Your task to perform on an android device: clear history in the chrome app Image 0: 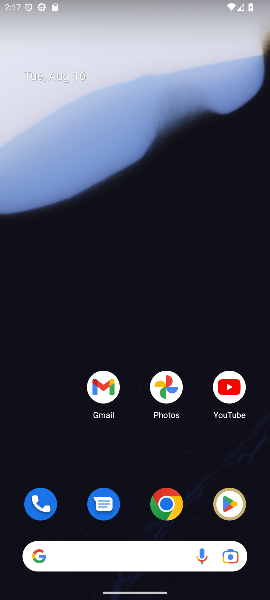
Step 0: click (134, 43)
Your task to perform on an android device: clear history in the chrome app Image 1: 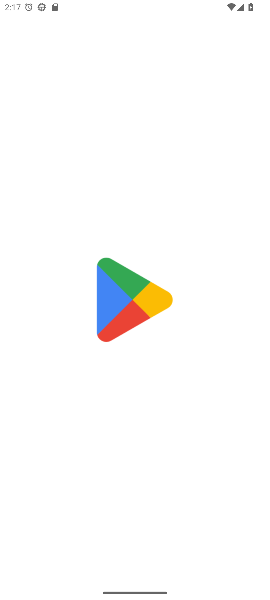
Step 1: press home button
Your task to perform on an android device: clear history in the chrome app Image 2: 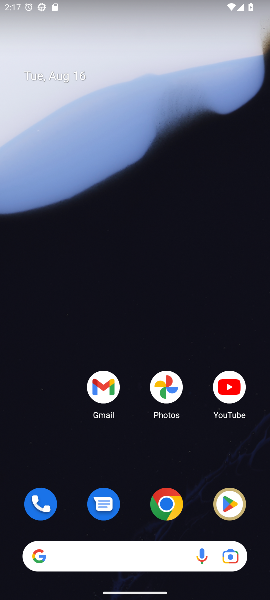
Step 2: click (170, 510)
Your task to perform on an android device: clear history in the chrome app Image 3: 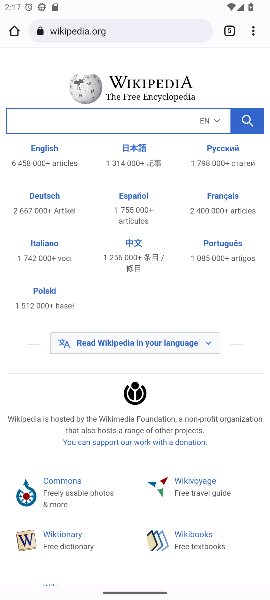
Step 3: click (251, 25)
Your task to perform on an android device: clear history in the chrome app Image 4: 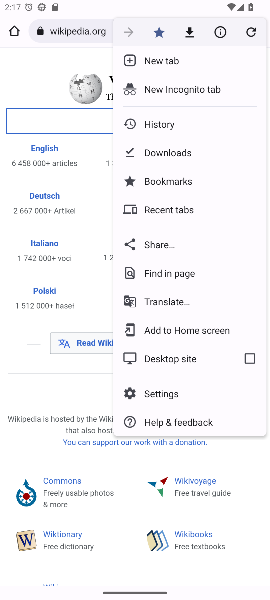
Step 4: click (162, 119)
Your task to perform on an android device: clear history in the chrome app Image 5: 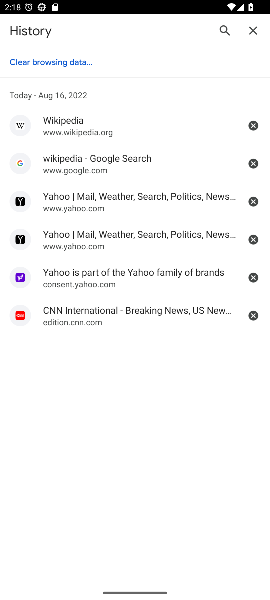
Step 5: click (57, 60)
Your task to perform on an android device: clear history in the chrome app Image 6: 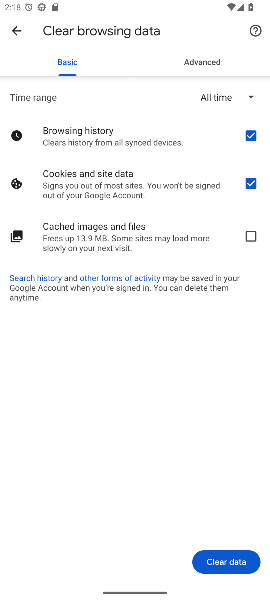
Step 6: click (227, 561)
Your task to perform on an android device: clear history in the chrome app Image 7: 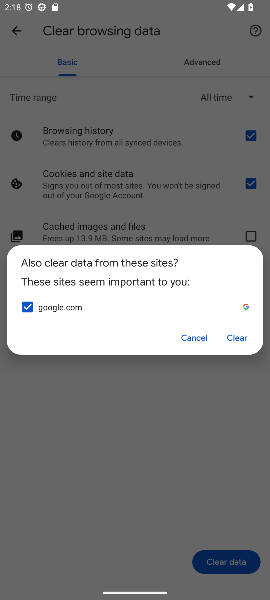
Step 7: click (233, 334)
Your task to perform on an android device: clear history in the chrome app Image 8: 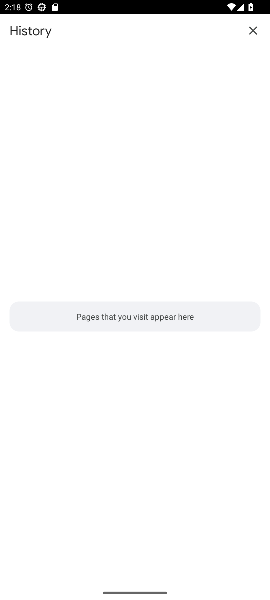
Step 8: click (197, 223)
Your task to perform on an android device: clear history in the chrome app Image 9: 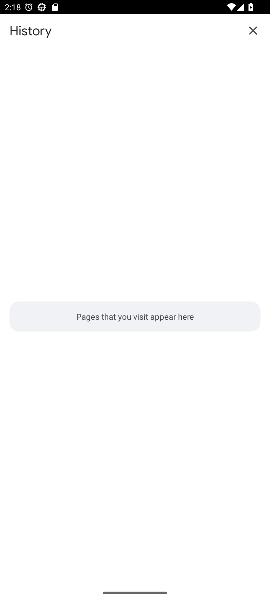
Step 9: task complete